Your task to perform on an android device: turn on data saver in the chrome app Image 0: 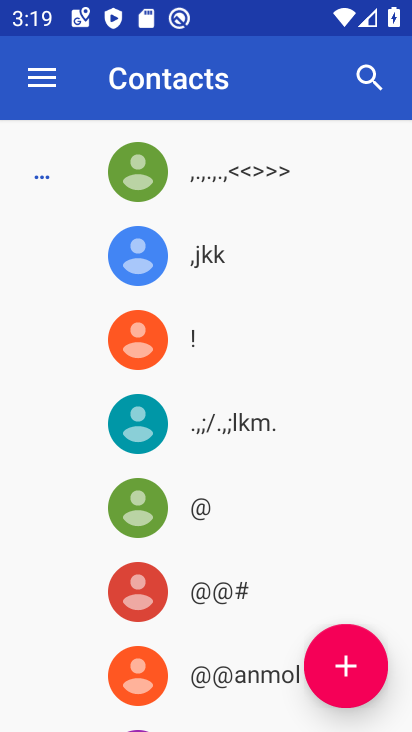
Step 0: press home button
Your task to perform on an android device: turn on data saver in the chrome app Image 1: 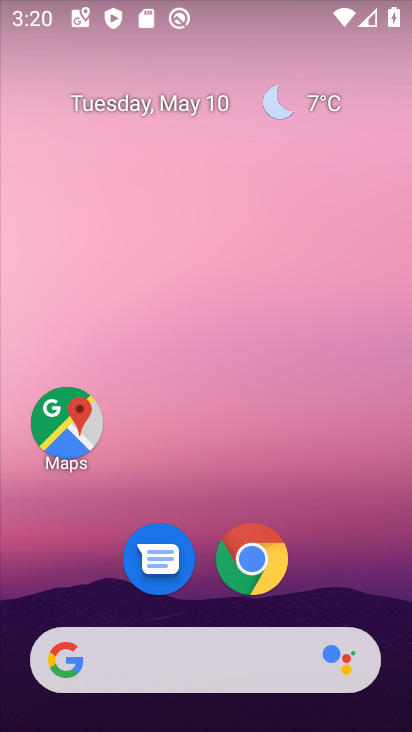
Step 1: click (279, 573)
Your task to perform on an android device: turn on data saver in the chrome app Image 2: 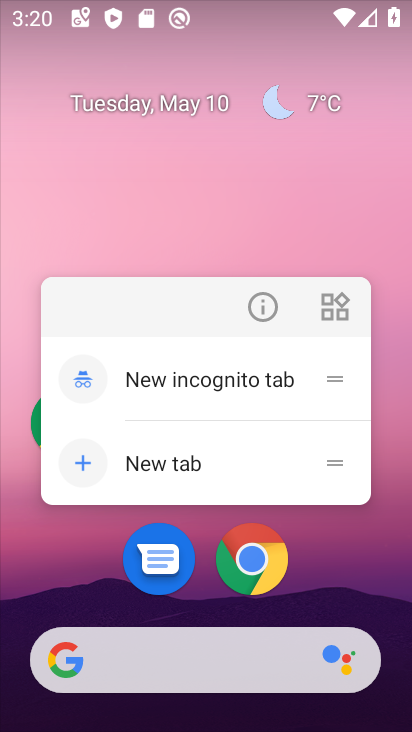
Step 2: click (244, 572)
Your task to perform on an android device: turn on data saver in the chrome app Image 3: 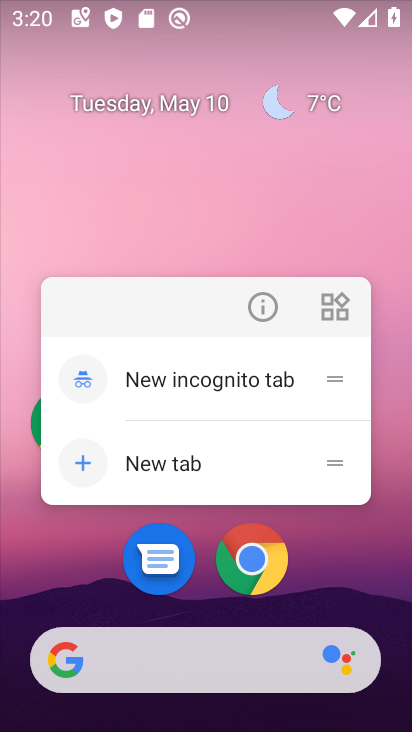
Step 3: click (263, 572)
Your task to perform on an android device: turn on data saver in the chrome app Image 4: 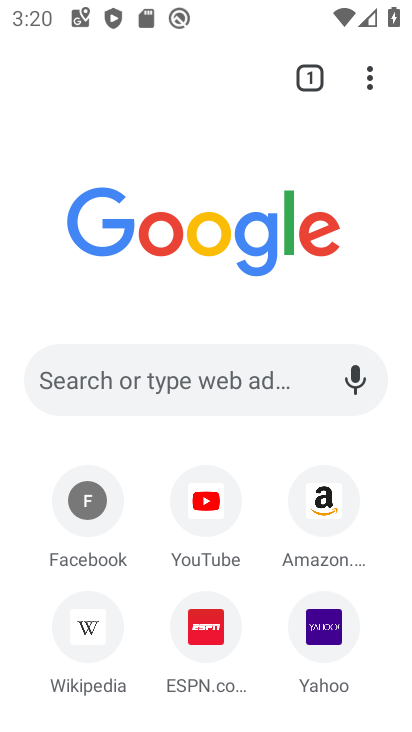
Step 4: drag from (374, 86) to (199, 623)
Your task to perform on an android device: turn on data saver in the chrome app Image 5: 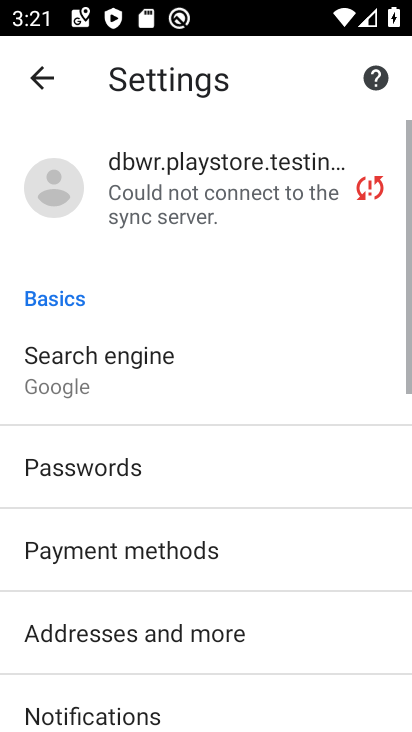
Step 5: drag from (218, 711) to (225, 317)
Your task to perform on an android device: turn on data saver in the chrome app Image 6: 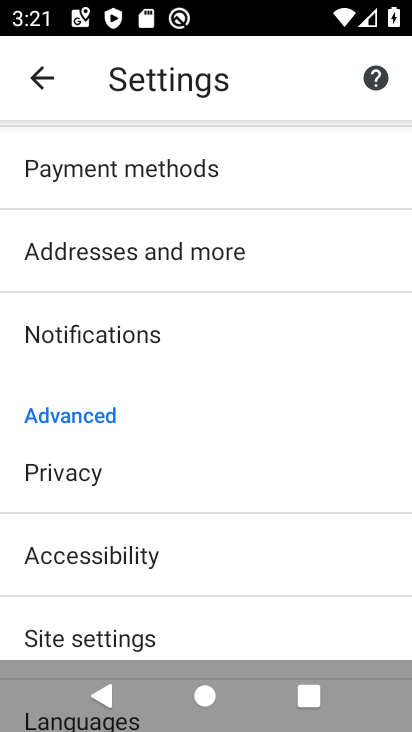
Step 6: drag from (234, 600) to (223, 330)
Your task to perform on an android device: turn on data saver in the chrome app Image 7: 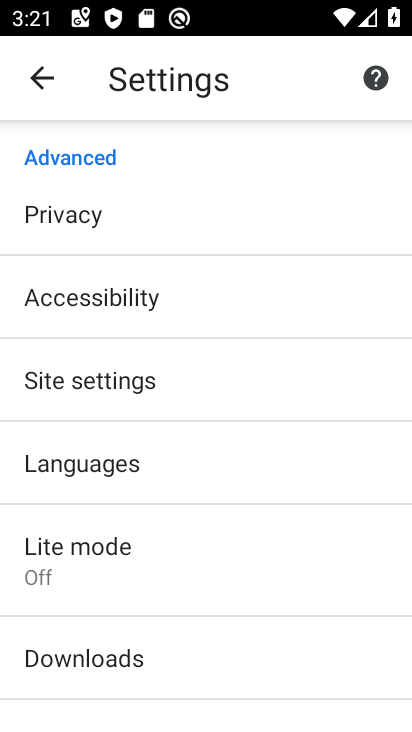
Step 7: drag from (181, 646) to (183, 516)
Your task to perform on an android device: turn on data saver in the chrome app Image 8: 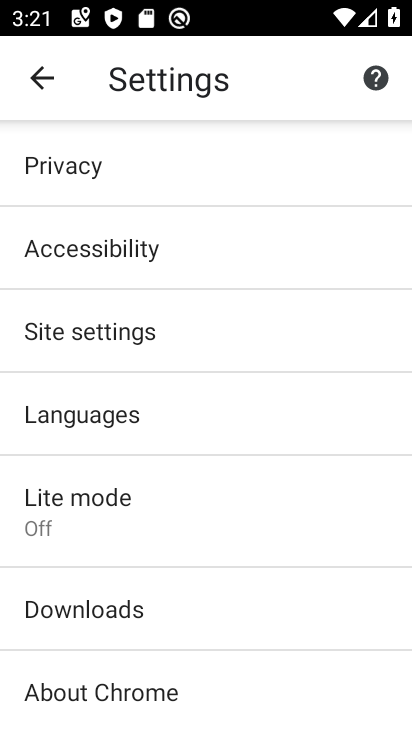
Step 8: click (79, 523)
Your task to perform on an android device: turn on data saver in the chrome app Image 9: 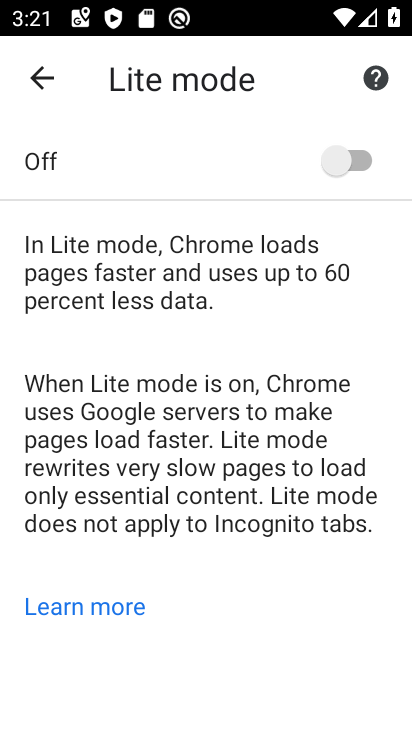
Step 9: click (357, 160)
Your task to perform on an android device: turn on data saver in the chrome app Image 10: 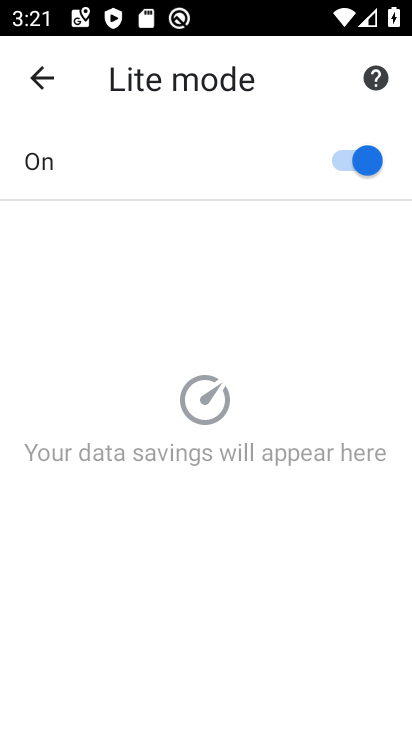
Step 10: task complete